Your task to perform on an android device: open app "Google News" Image 0: 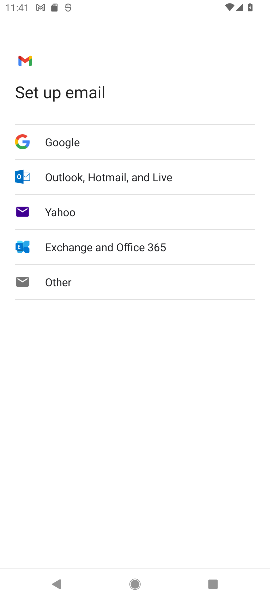
Step 0: press back button
Your task to perform on an android device: open app "Google News" Image 1: 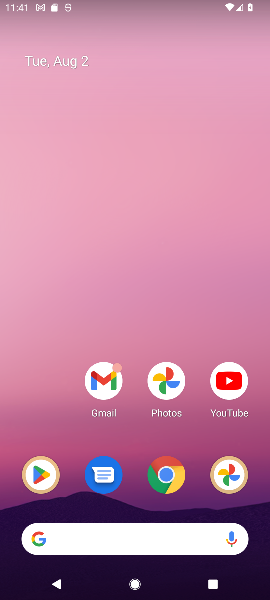
Step 1: click (39, 469)
Your task to perform on an android device: open app "Google News" Image 2: 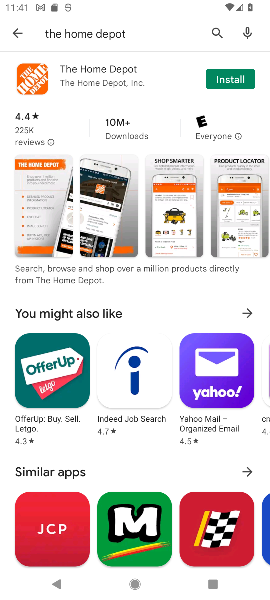
Step 2: click (221, 29)
Your task to perform on an android device: open app "Google News" Image 3: 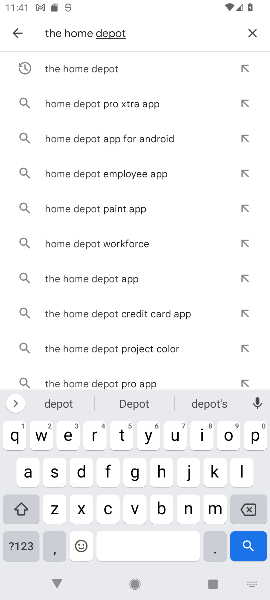
Step 3: click (252, 32)
Your task to perform on an android device: open app "Google News" Image 4: 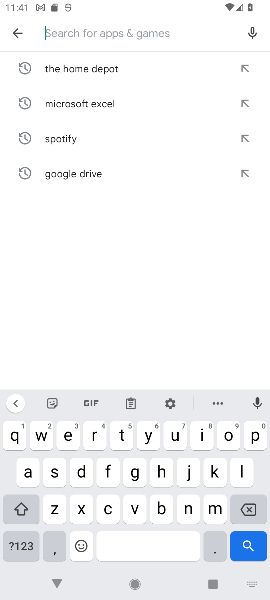
Step 4: type "Google News"
Your task to perform on an android device: open app "Google News" Image 5: 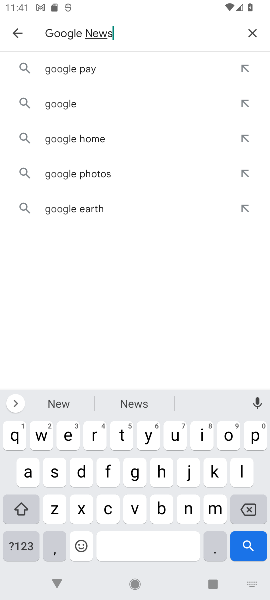
Step 5: type ""
Your task to perform on an android device: open app "Google News" Image 6: 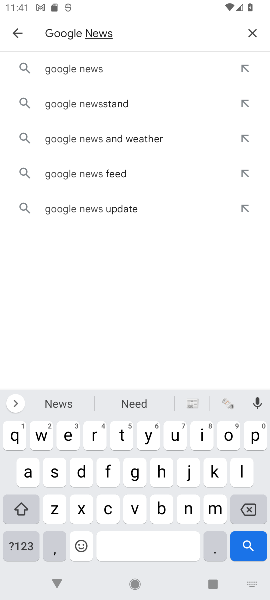
Step 6: click (90, 67)
Your task to perform on an android device: open app "Google News" Image 7: 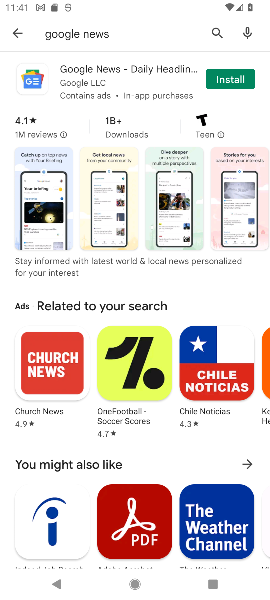
Step 7: task complete